Your task to perform on an android device: read, delete, or share a saved page in the chrome app Image 0: 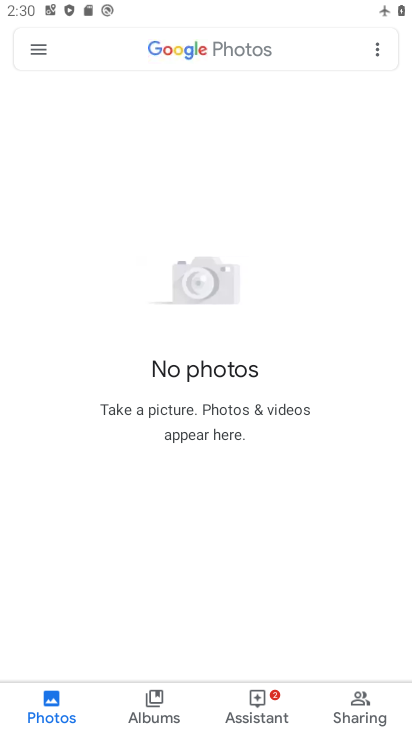
Step 0: press home button
Your task to perform on an android device: read, delete, or share a saved page in the chrome app Image 1: 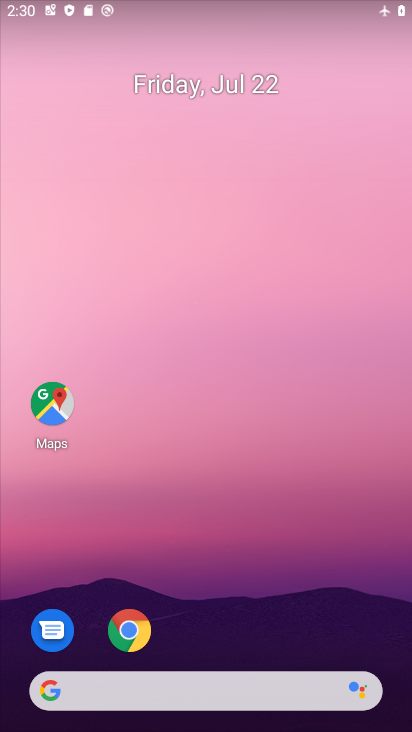
Step 1: drag from (213, 633) to (161, 99)
Your task to perform on an android device: read, delete, or share a saved page in the chrome app Image 2: 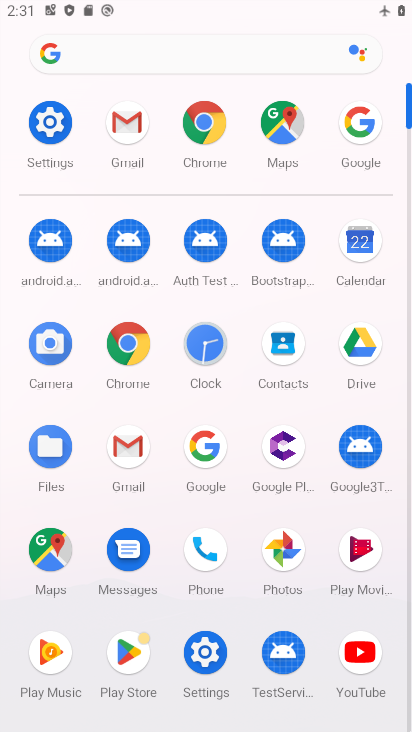
Step 2: click (143, 352)
Your task to perform on an android device: read, delete, or share a saved page in the chrome app Image 3: 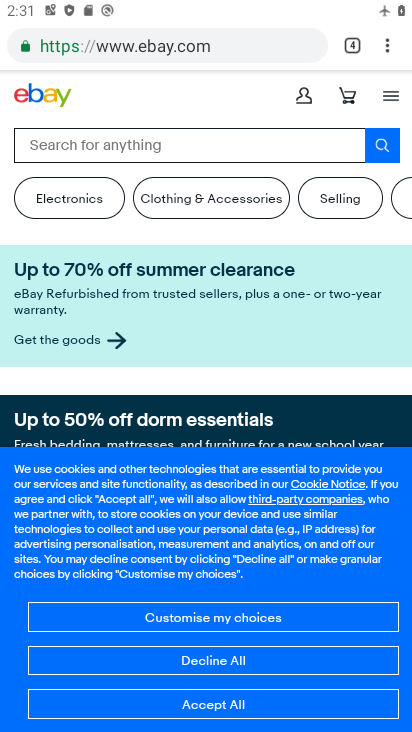
Step 3: click (383, 45)
Your task to perform on an android device: read, delete, or share a saved page in the chrome app Image 4: 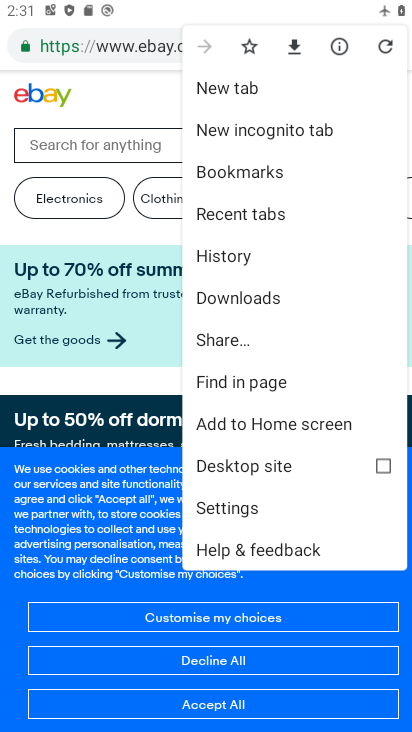
Step 4: click (244, 517)
Your task to perform on an android device: read, delete, or share a saved page in the chrome app Image 5: 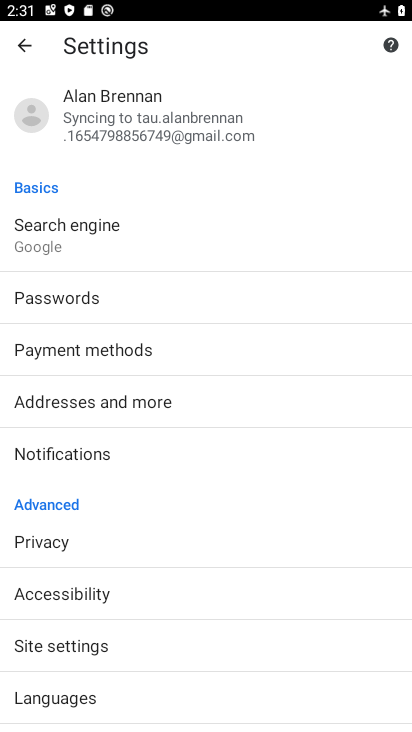
Step 5: task complete